Your task to perform on an android device: turn on showing notifications on the lock screen Image 0: 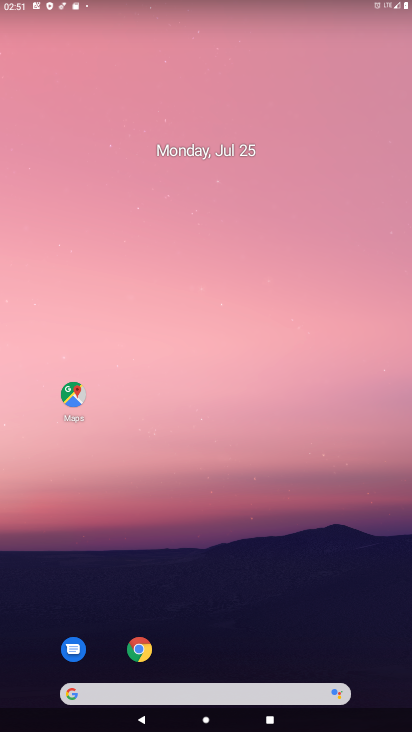
Step 0: drag from (376, 679) to (352, 140)
Your task to perform on an android device: turn on showing notifications on the lock screen Image 1: 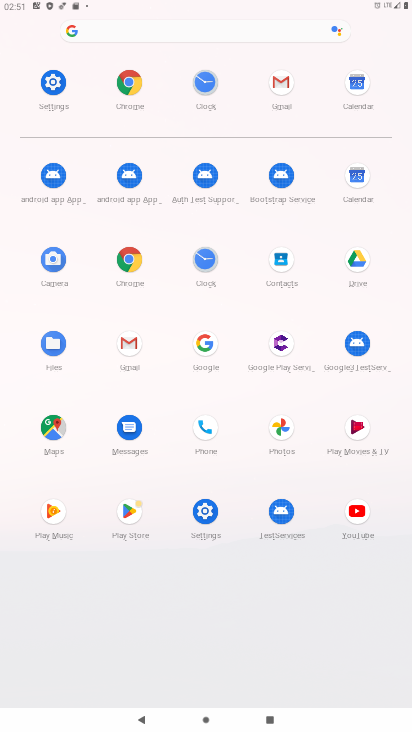
Step 1: click (208, 514)
Your task to perform on an android device: turn on showing notifications on the lock screen Image 2: 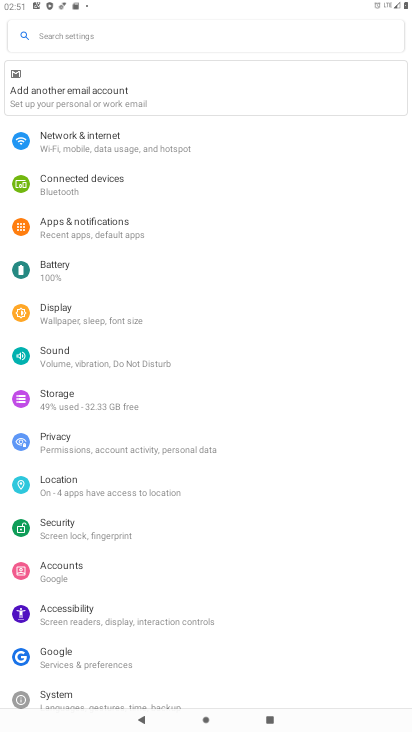
Step 2: click (76, 238)
Your task to perform on an android device: turn on showing notifications on the lock screen Image 3: 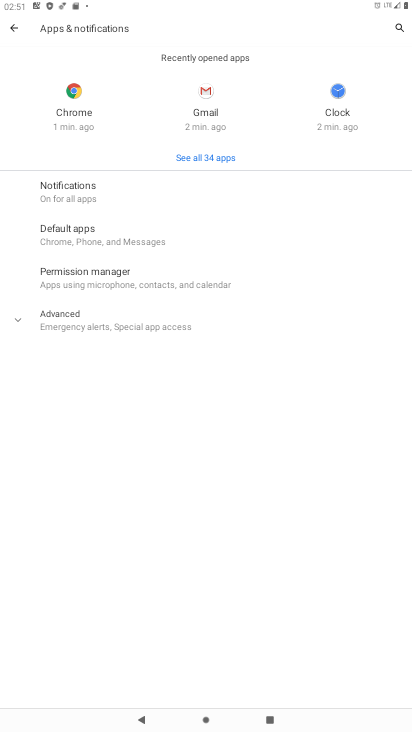
Step 3: click (66, 184)
Your task to perform on an android device: turn on showing notifications on the lock screen Image 4: 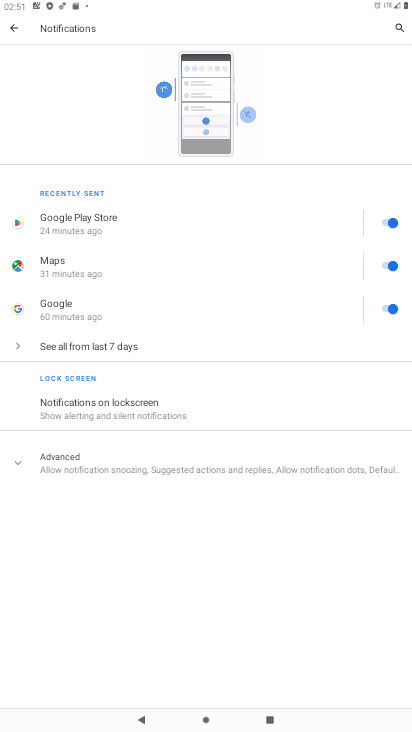
Step 4: click (19, 465)
Your task to perform on an android device: turn on showing notifications on the lock screen Image 5: 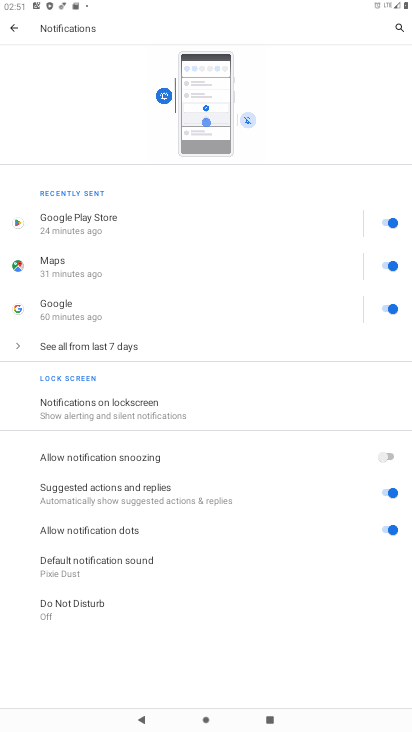
Step 5: drag from (317, 259) to (284, 487)
Your task to perform on an android device: turn on showing notifications on the lock screen Image 6: 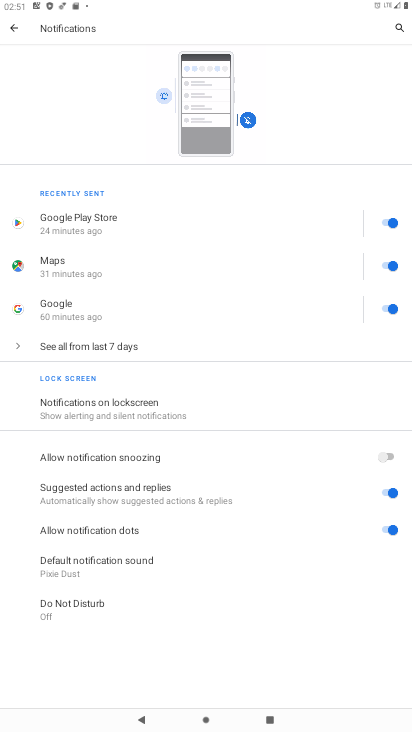
Step 6: click (115, 416)
Your task to perform on an android device: turn on showing notifications on the lock screen Image 7: 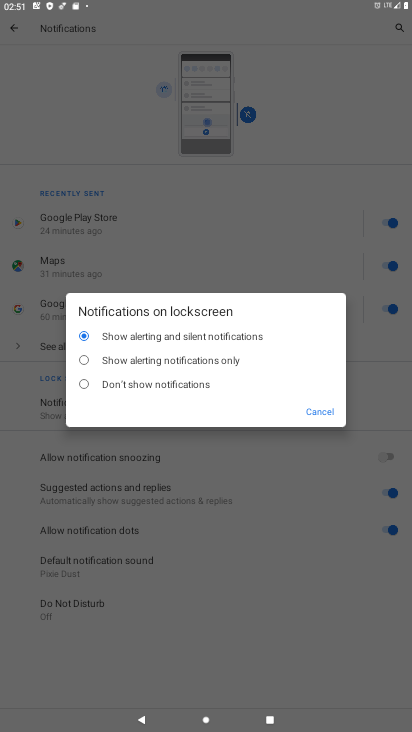
Step 7: task complete